Your task to perform on an android device: Open the web browser Image 0: 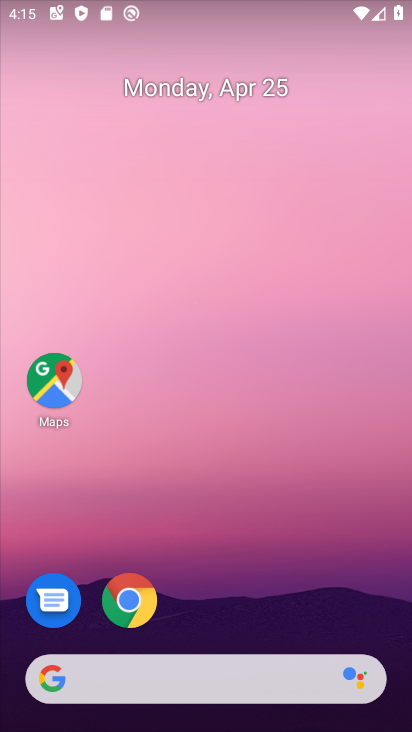
Step 0: drag from (279, 551) to (251, 61)
Your task to perform on an android device: Open the web browser Image 1: 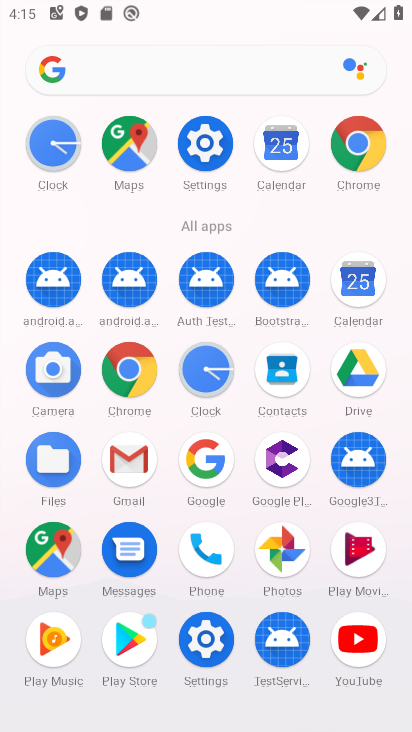
Step 1: drag from (13, 549) to (1, 192)
Your task to perform on an android device: Open the web browser Image 2: 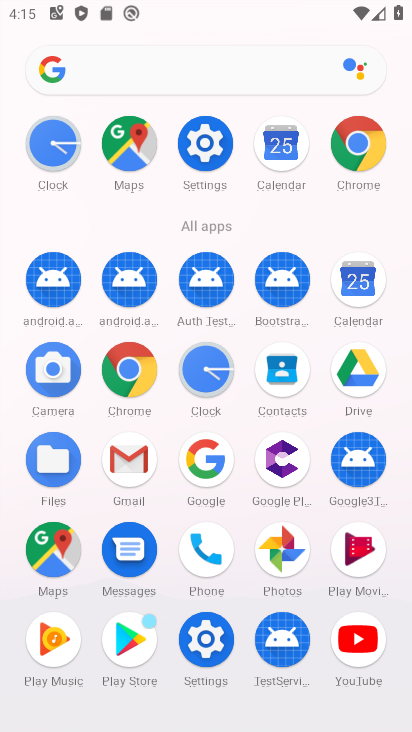
Step 2: click (127, 373)
Your task to perform on an android device: Open the web browser Image 3: 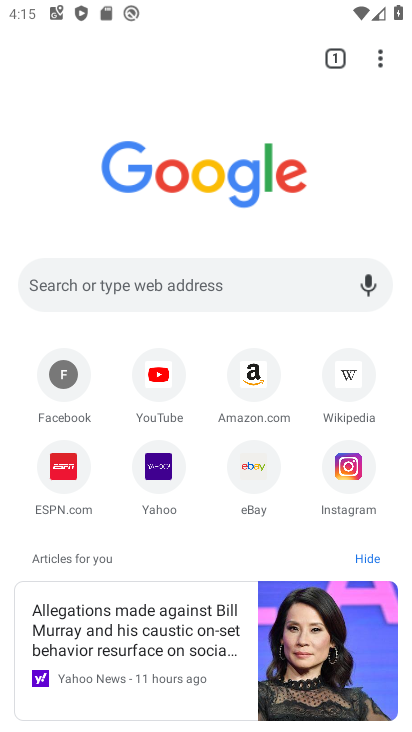
Step 3: task complete